Your task to perform on an android device: Go to CNN.com Image 0: 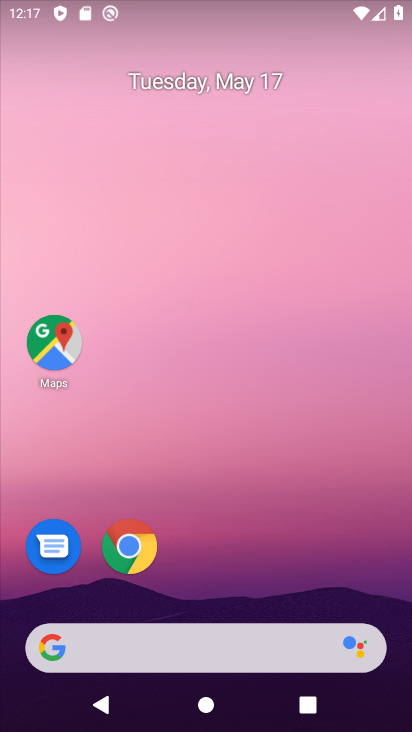
Step 0: click (135, 556)
Your task to perform on an android device: Go to CNN.com Image 1: 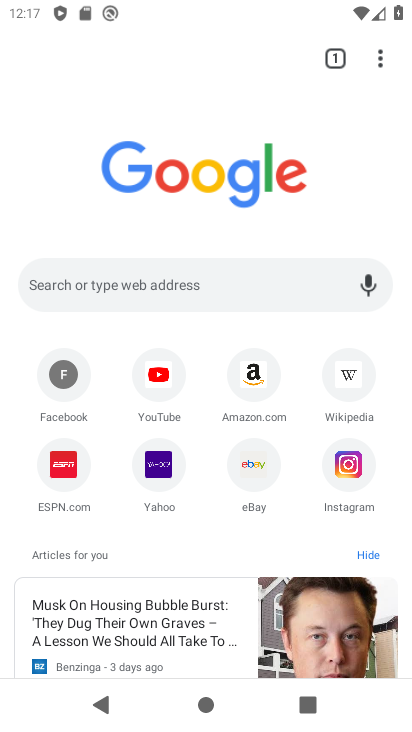
Step 1: click (169, 288)
Your task to perform on an android device: Go to CNN.com Image 2: 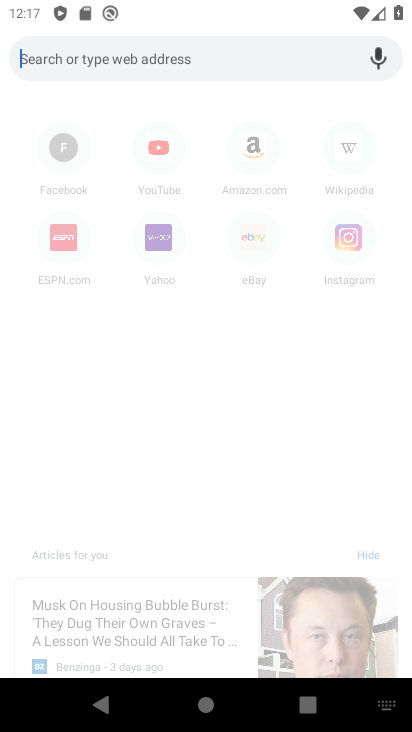
Step 2: type "CNN.com"
Your task to perform on an android device: Go to CNN.com Image 3: 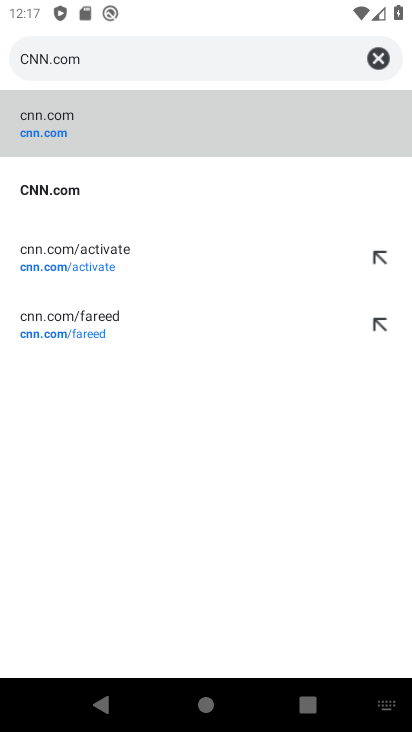
Step 3: click (224, 135)
Your task to perform on an android device: Go to CNN.com Image 4: 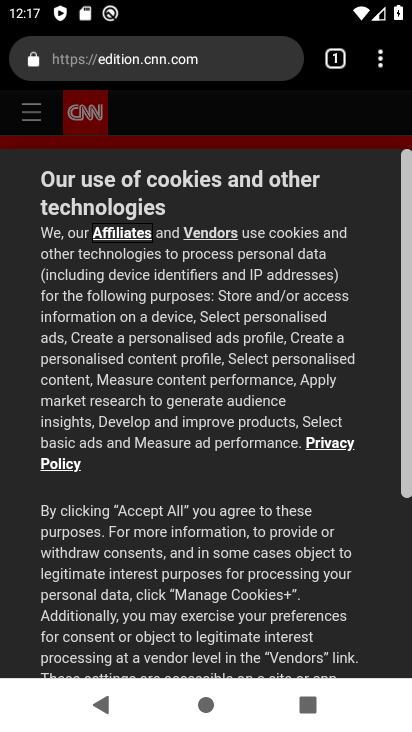
Step 4: task complete